Your task to perform on an android device: Go to Reddit.com Image 0: 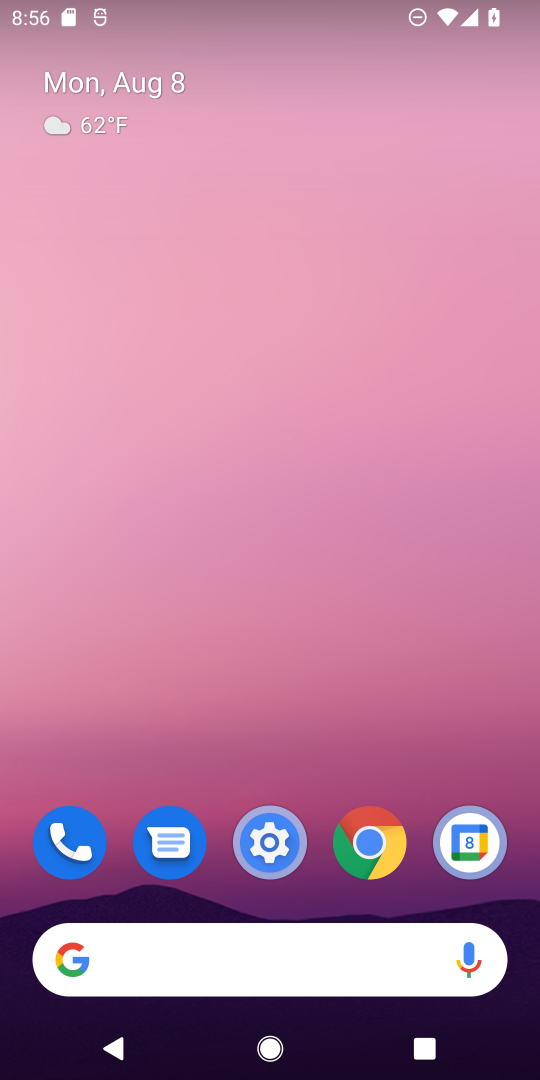
Step 0: click (337, 962)
Your task to perform on an android device: Go to Reddit.com Image 1: 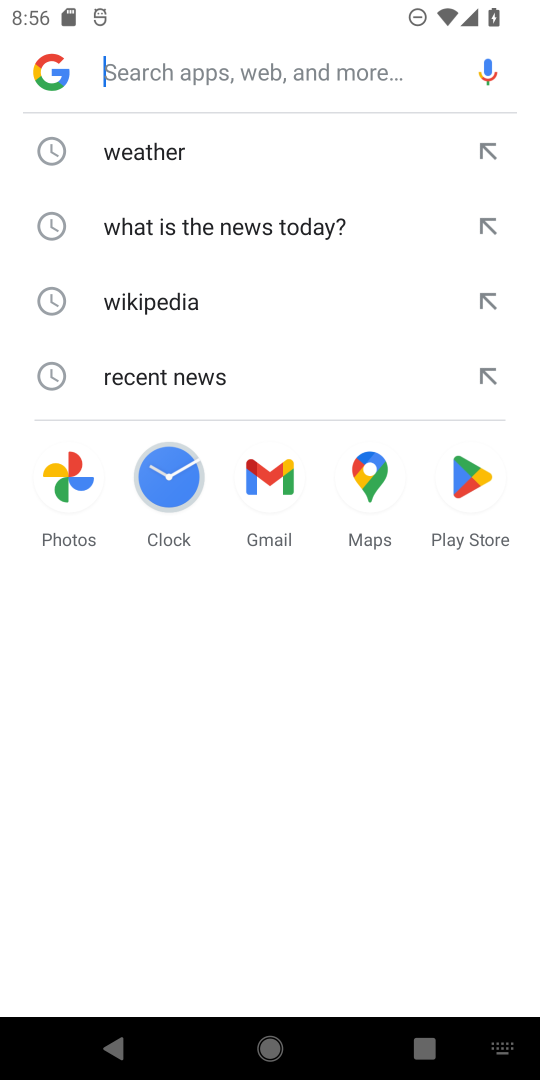
Step 1: type "reddit.com"
Your task to perform on an android device: Go to Reddit.com Image 2: 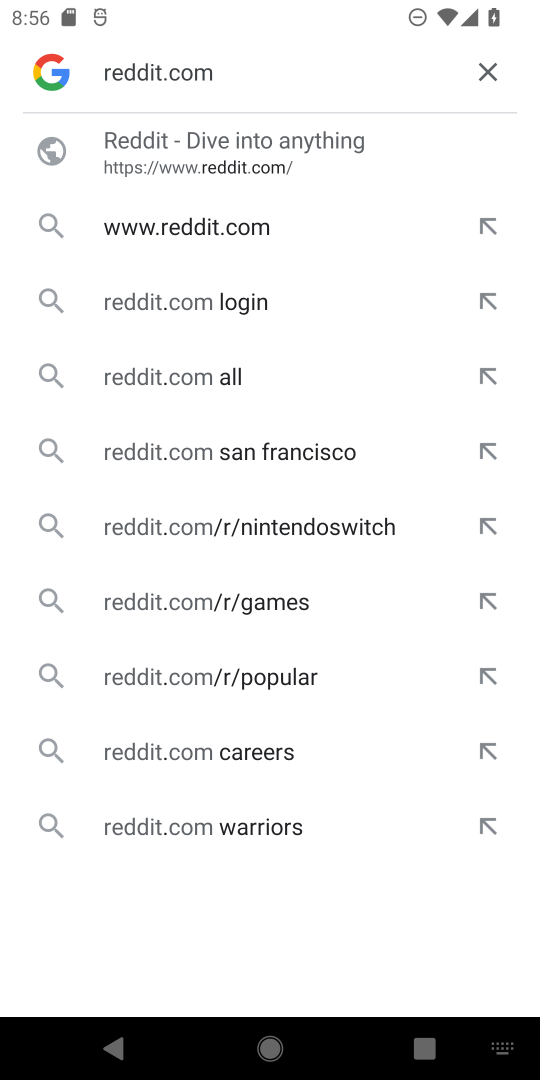
Step 2: click (300, 157)
Your task to perform on an android device: Go to Reddit.com Image 3: 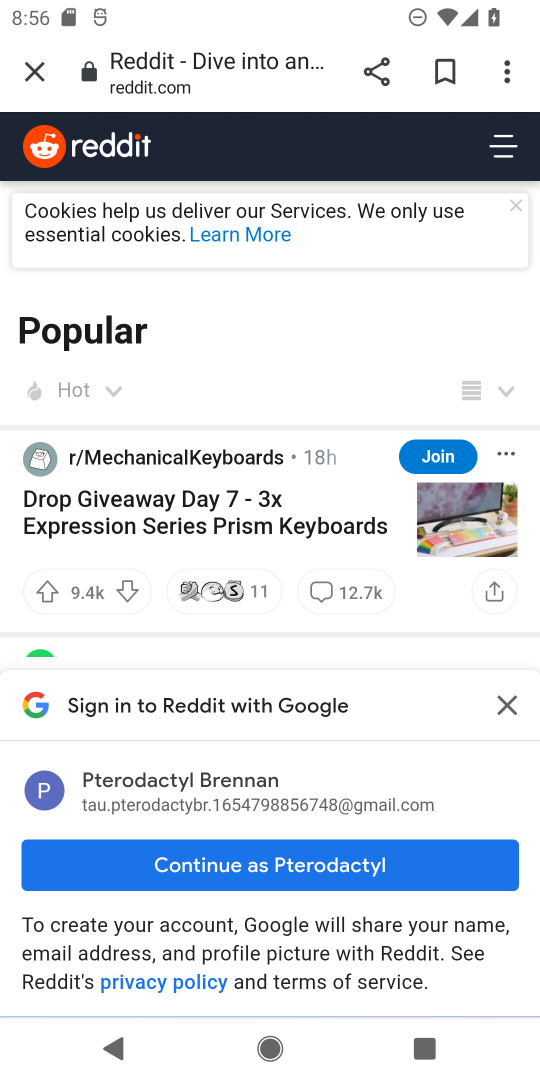
Step 3: task complete